Your task to perform on an android device: Go to Google Image 0: 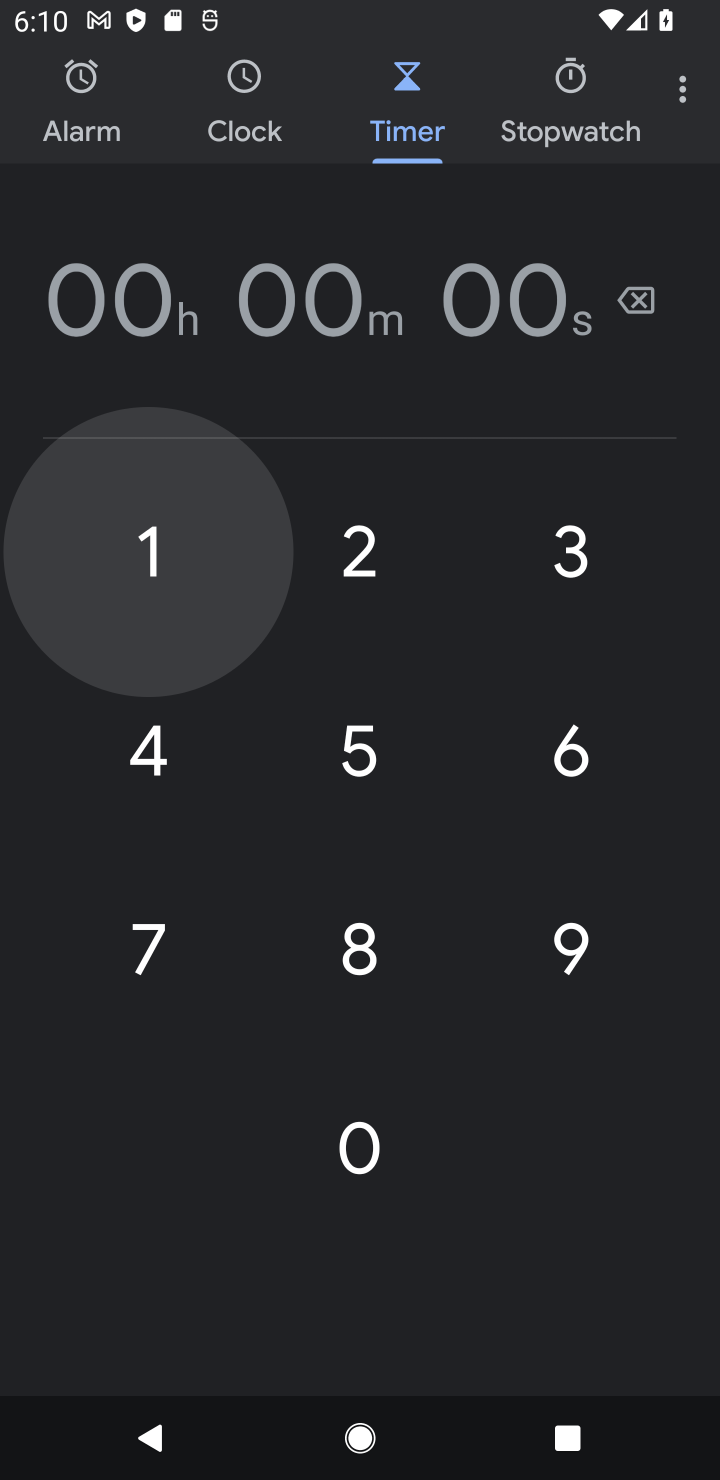
Step 0: press home button
Your task to perform on an android device: Go to Google Image 1: 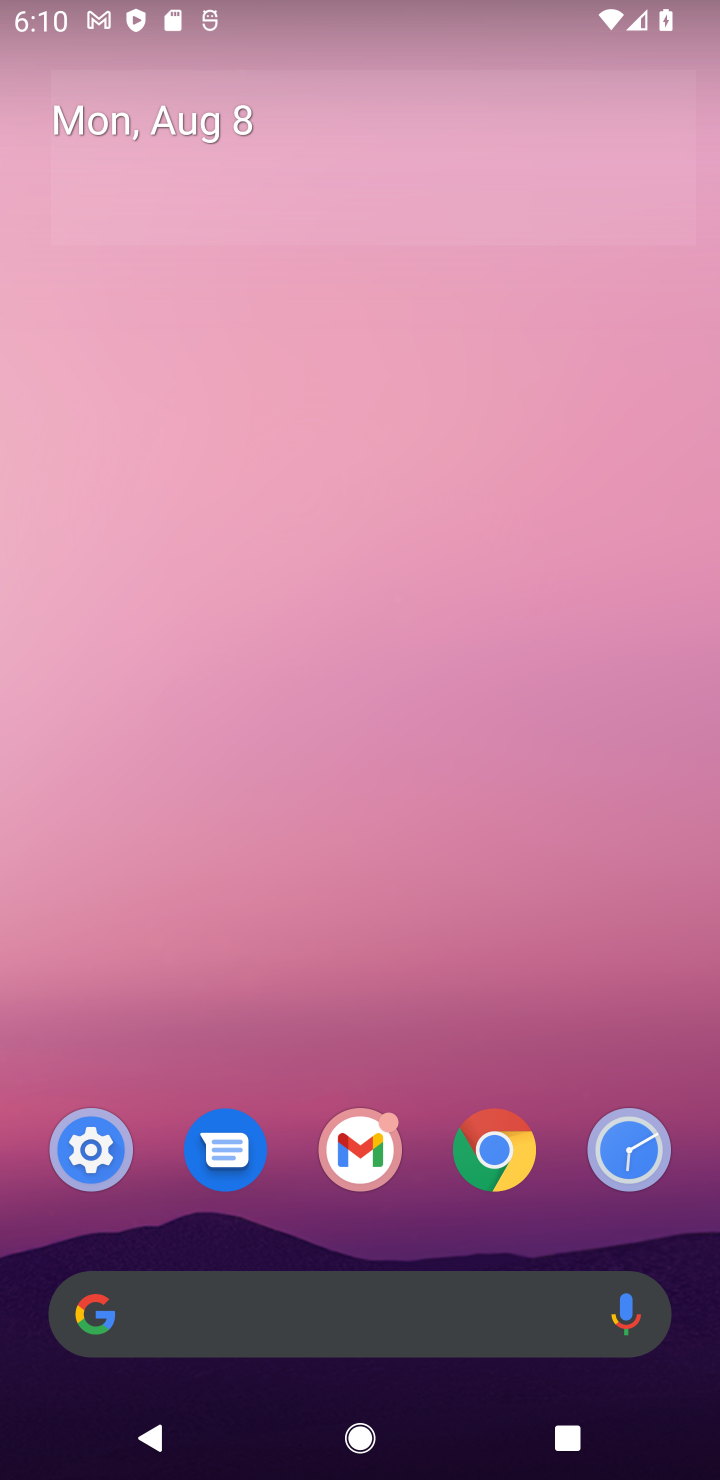
Step 1: click (408, 1339)
Your task to perform on an android device: Go to Google Image 2: 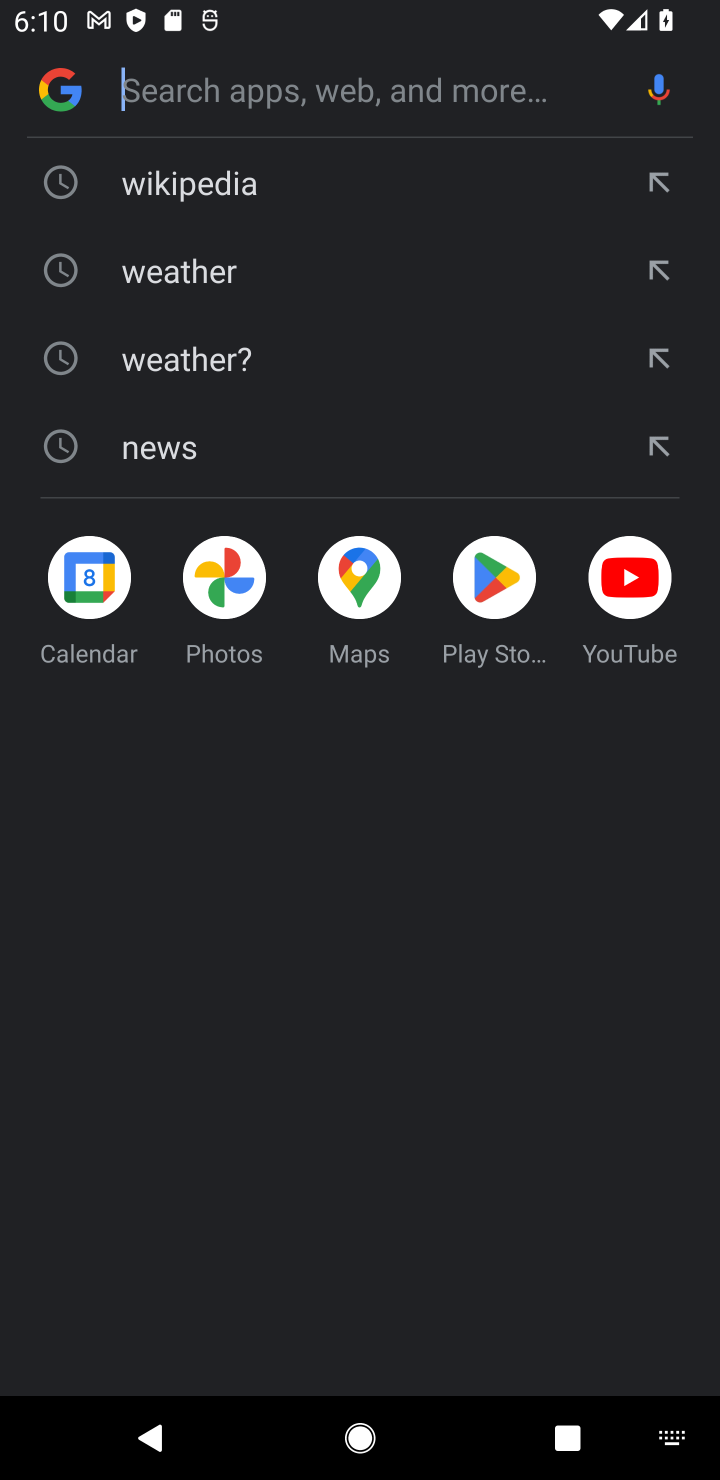
Step 2: type "google.com"
Your task to perform on an android device: Go to Google Image 3: 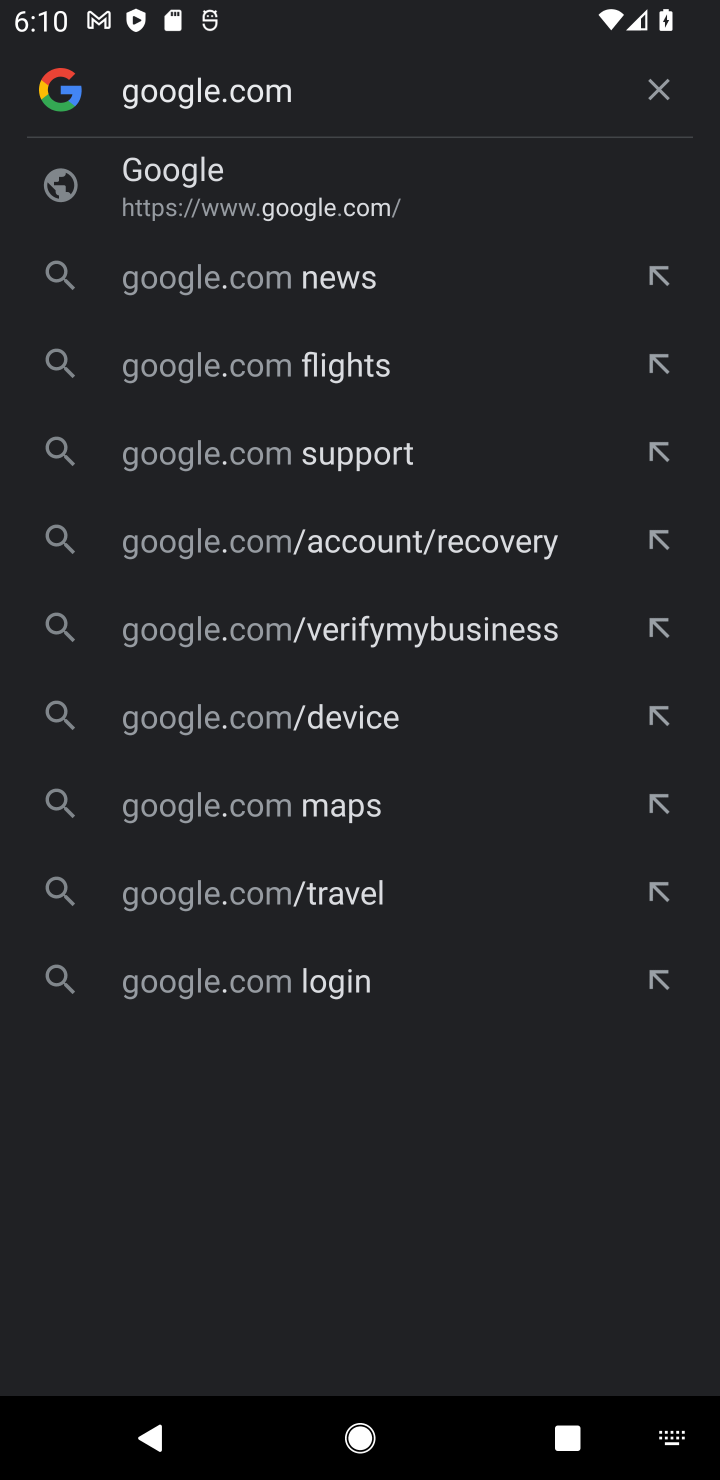
Step 3: click (307, 207)
Your task to perform on an android device: Go to Google Image 4: 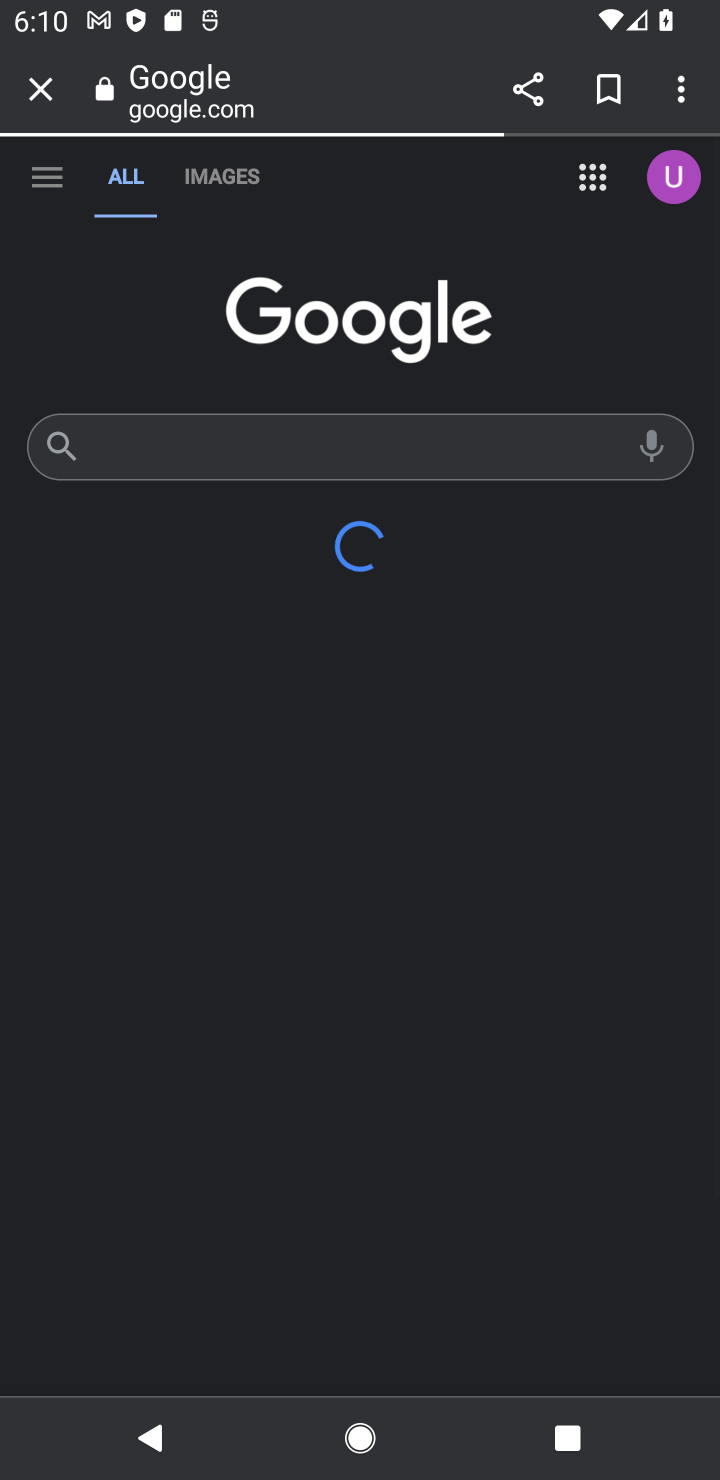
Step 4: task complete